Your task to perform on an android device: Open display settings Image 0: 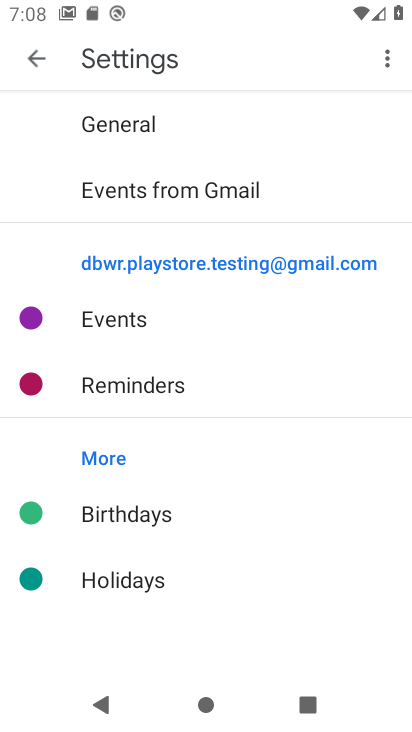
Step 0: press home button
Your task to perform on an android device: Open display settings Image 1: 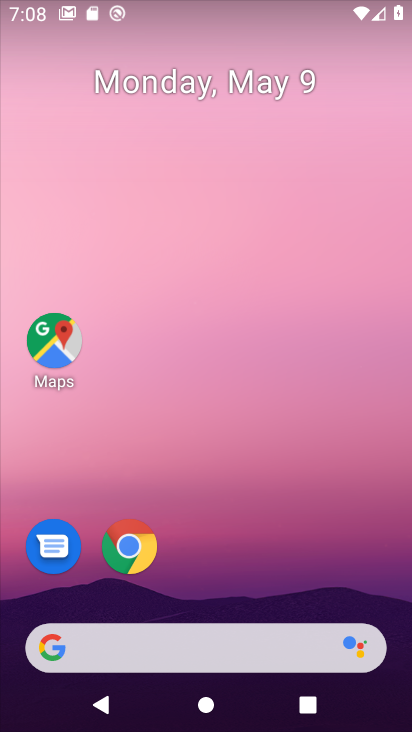
Step 1: drag from (284, 541) to (291, 122)
Your task to perform on an android device: Open display settings Image 2: 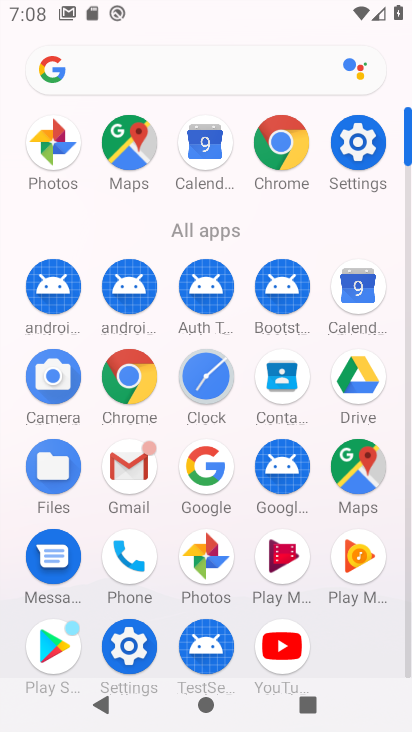
Step 2: click (379, 146)
Your task to perform on an android device: Open display settings Image 3: 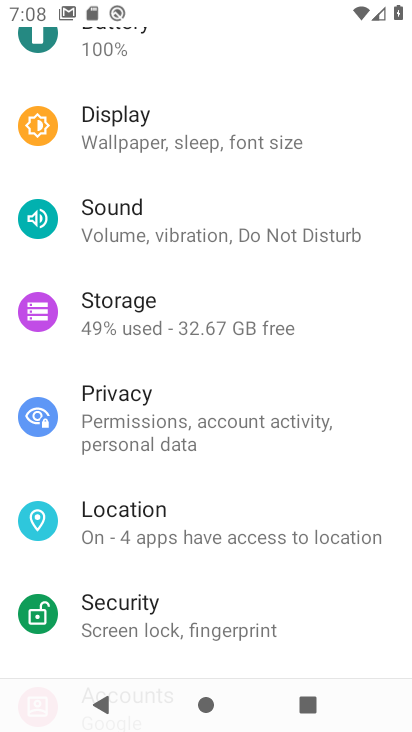
Step 3: drag from (148, 547) to (195, 428)
Your task to perform on an android device: Open display settings Image 4: 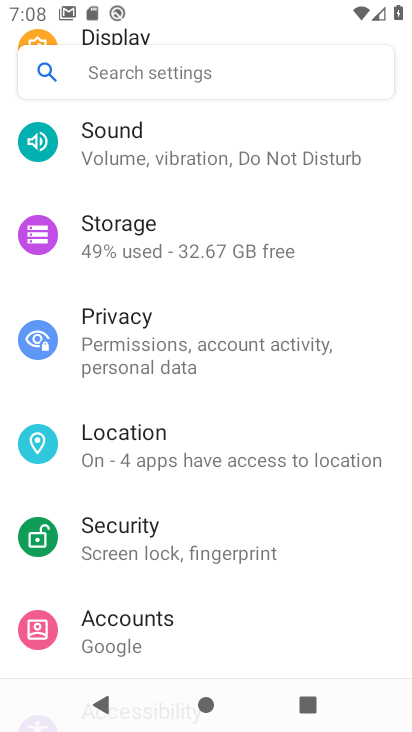
Step 4: drag from (169, 240) to (169, 426)
Your task to perform on an android device: Open display settings Image 5: 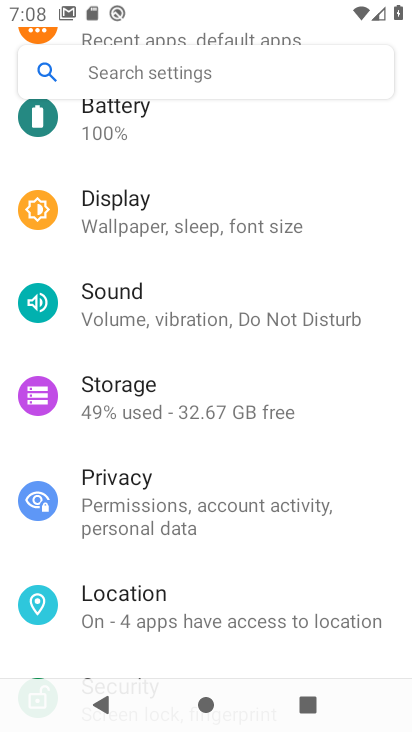
Step 5: click (174, 201)
Your task to perform on an android device: Open display settings Image 6: 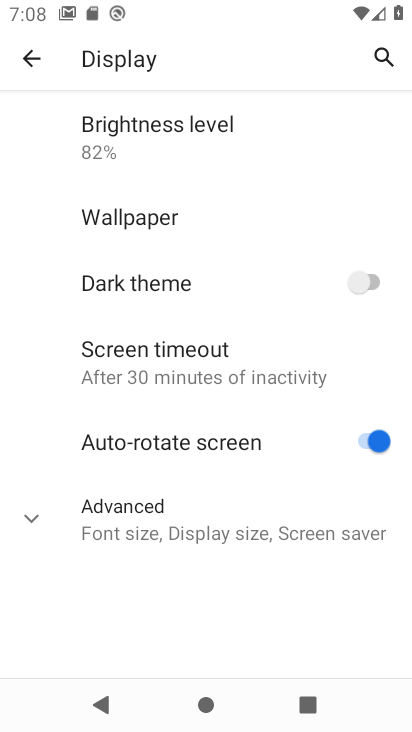
Step 6: task complete